Your task to perform on an android device: Go to accessibility settings Image 0: 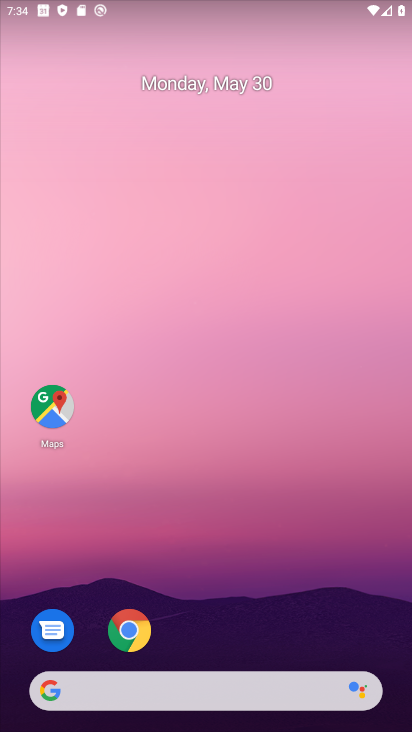
Step 0: drag from (160, 700) to (300, 120)
Your task to perform on an android device: Go to accessibility settings Image 1: 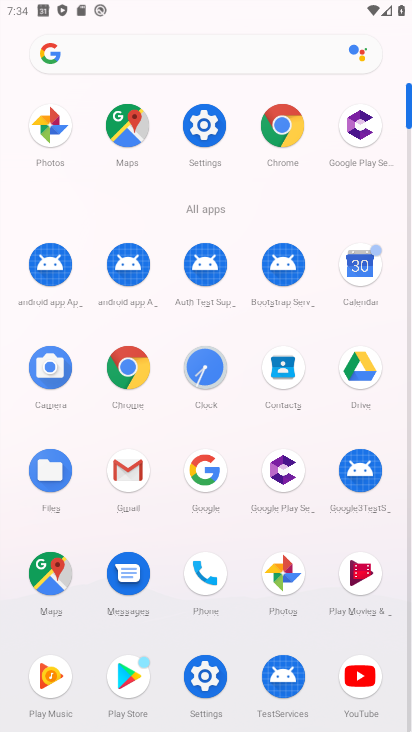
Step 1: click (208, 124)
Your task to perform on an android device: Go to accessibility settings Image 2: 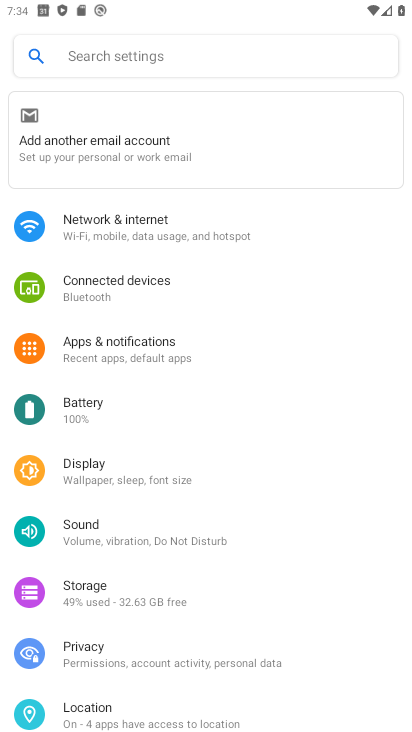
Step 2: drag from (274, 506) to (390, 273)
Your task to perform on an android device: Go to accessibility settings Image 3: 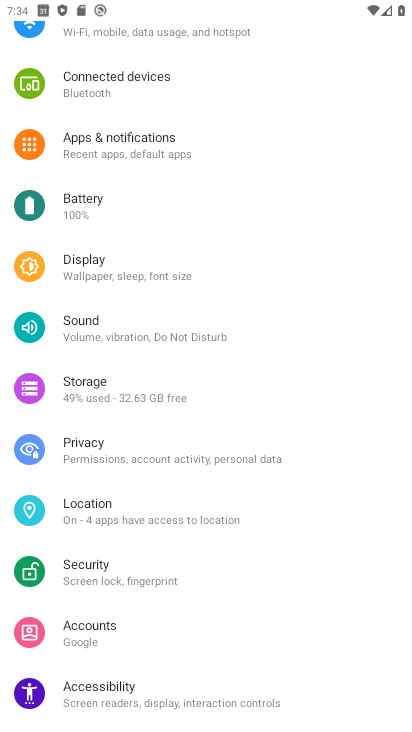
Step 3: click (113, 688)
Your task to perform on an android device: Go to accessibility settings Image 4: 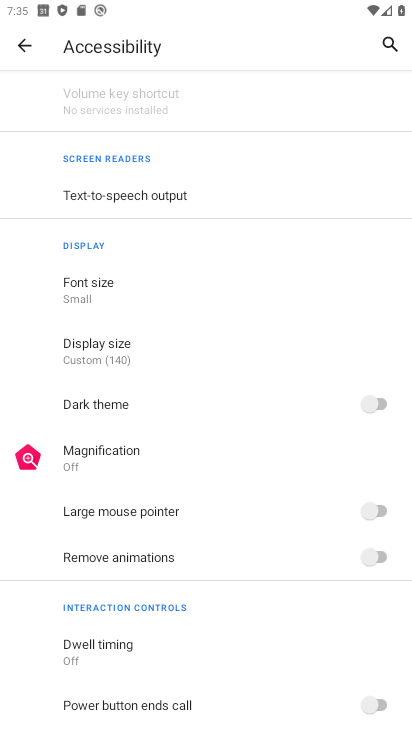
Step 4: task complete